Your task to perform on an android device: toggle data saver in the chrome app Image 0: 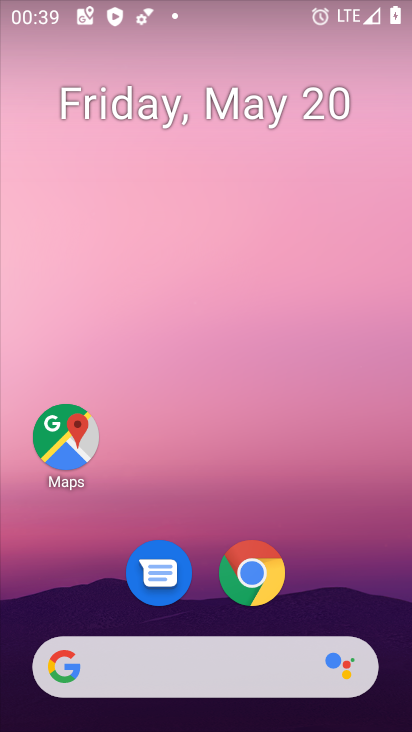
Step 0: click (250, 588)
Your task to perform on an android device: toggle data saver in the chrome app Image 1: 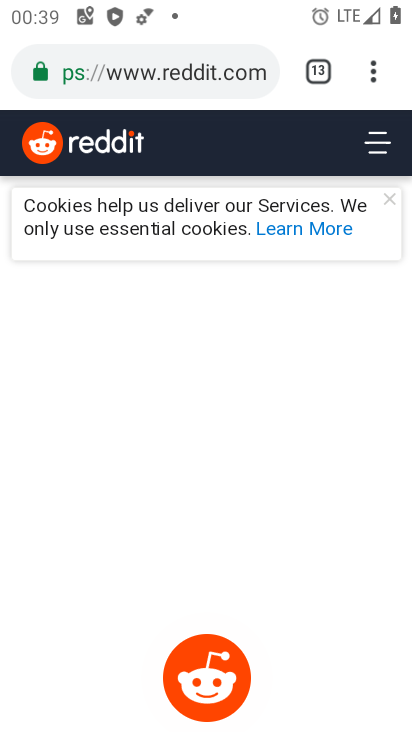
Step 1: click (373, 70)
Your task to perform on an android device: toggle data saver in the chrome app Image 2: 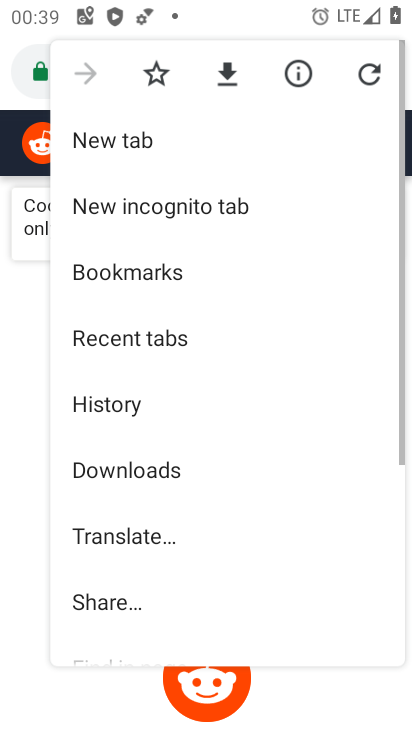
Step 2: drag from (174, 562) to (188, 347)
Your task to perform on an android device: toggle data saver in the chrome app Image 3: 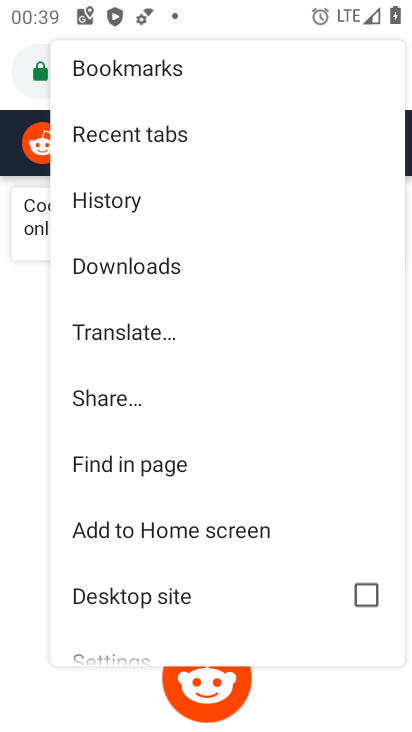
Step 3: drag from (173, 552) to (175, 336)
Your task to perform on an android device: toggle data saver in the chrome app Image 4: 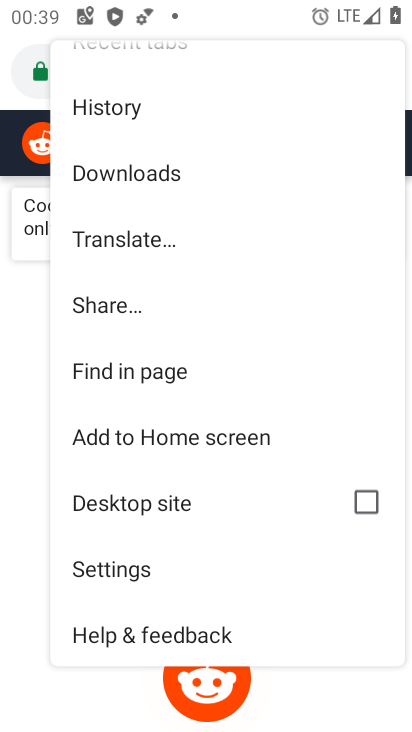
Step 4: click (184, 564)
Your task to perform on an android device: toggle data saver in the chrome app Image 5: 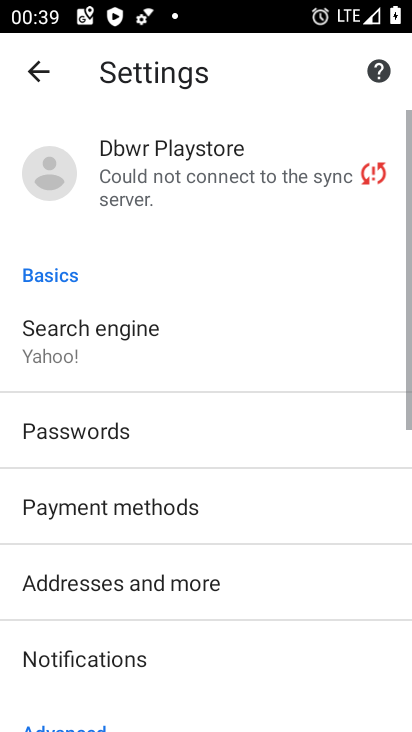
Step 5: drag from (257, 590) to (262, 315)
Your task to perform on an android device: toggle data saver in the chrome app Image 6: 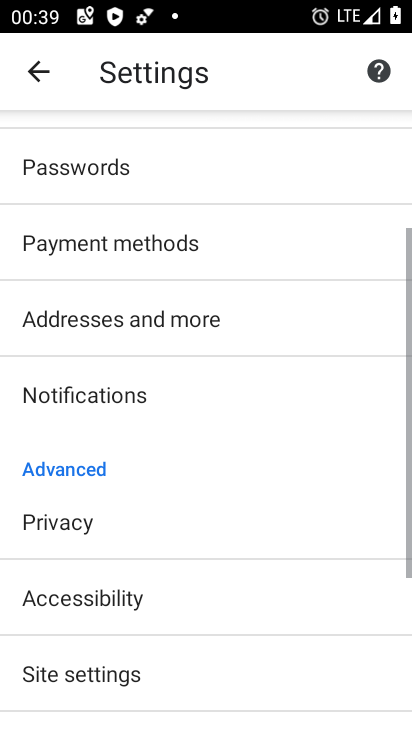
Step 6: drag from (262, 565) to (277, 353)
Your task to perform on an android device: toggle data saver in the chrome app Image 7: 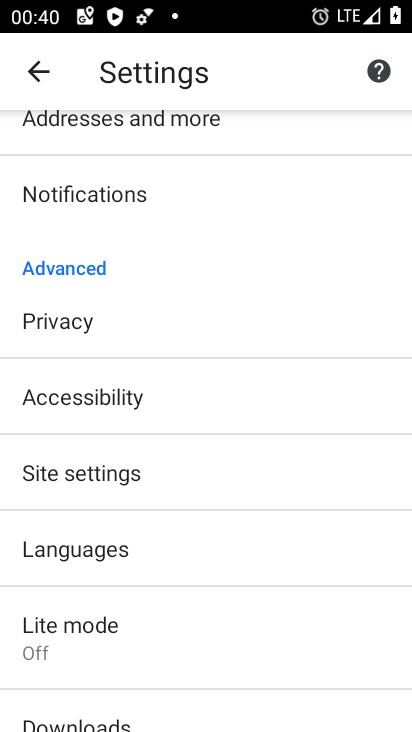
Step 7: click (177, 478)
Your task to perform on an android device: toggle data saver in the chrome app Image 8: 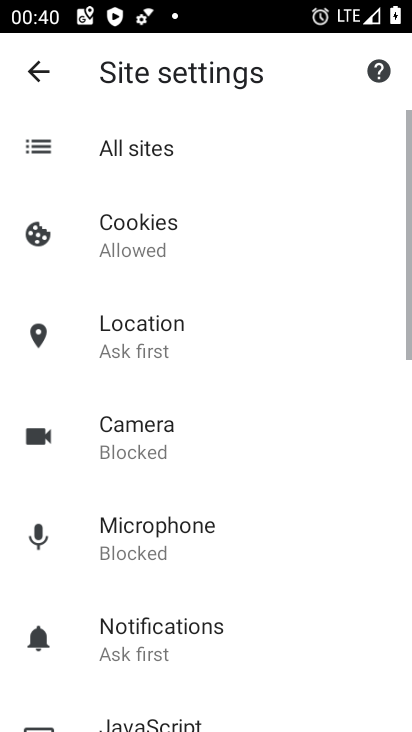
Step 8: drag from (217, 525) to (237, 194)
Your task to perform on an android device: toggle data saver in the chrome app Image 9: 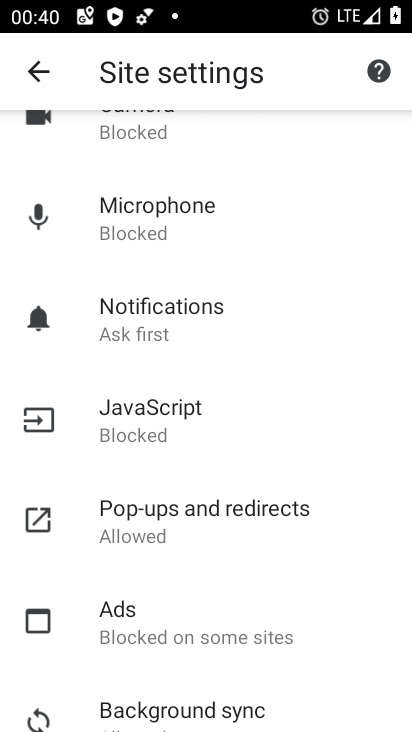
Step 9: click (33, 69)
Your task to perform on an android device: toggle data saver in the chrome app Image 10: 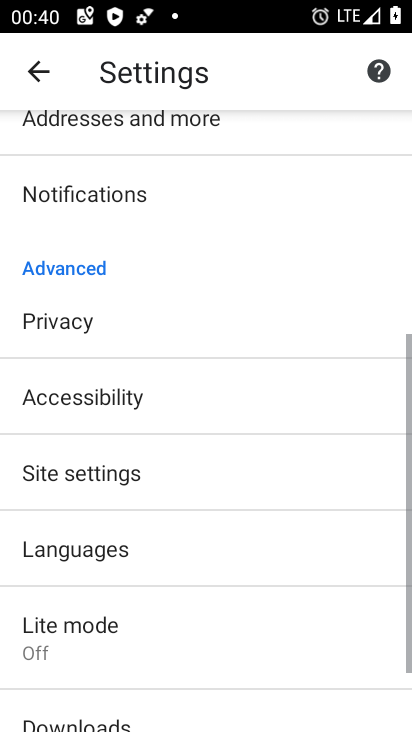
Step 10: click (205, 634)
Your task to perform on an android device: toggle data saver in the chrome app Image 11: 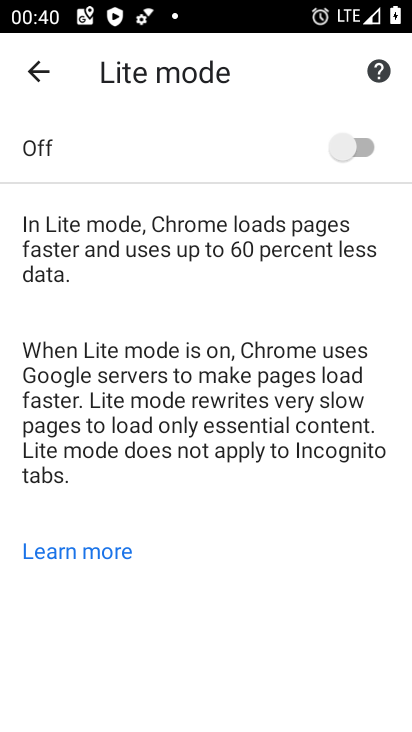
Step 11: click (365, 154)
Your task to perform on an android device: toggle data saver in the chrome app Image 12: 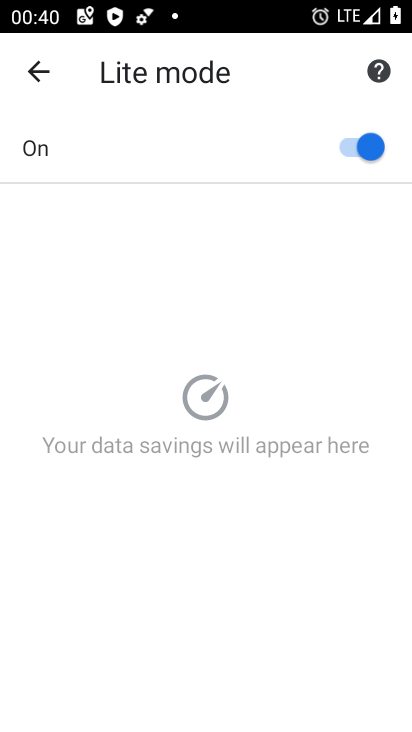
Step 12: task complete